Your task to perform on an android device: Open my contact list Image 0: 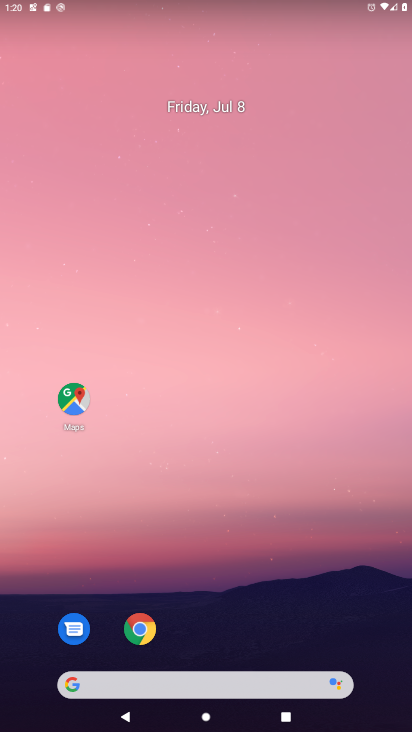
Step 0: drag from (301, 578) to (367, 22)
Your task to perform on an android device: Open my contact list Image 1: 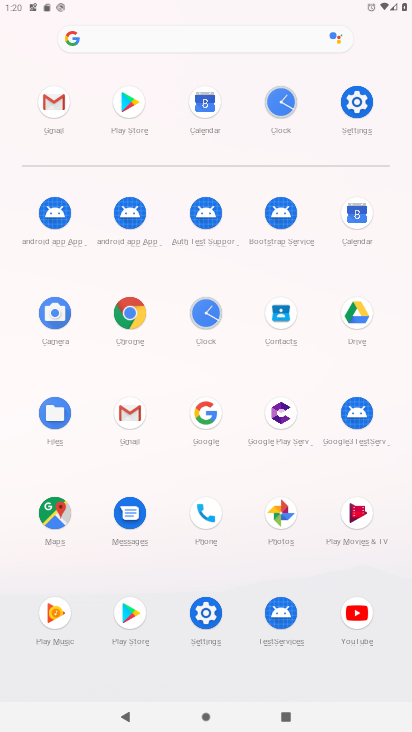
Step 1: click (285, 313)
Your task to perform on an android device: Open my contact list Image 2: 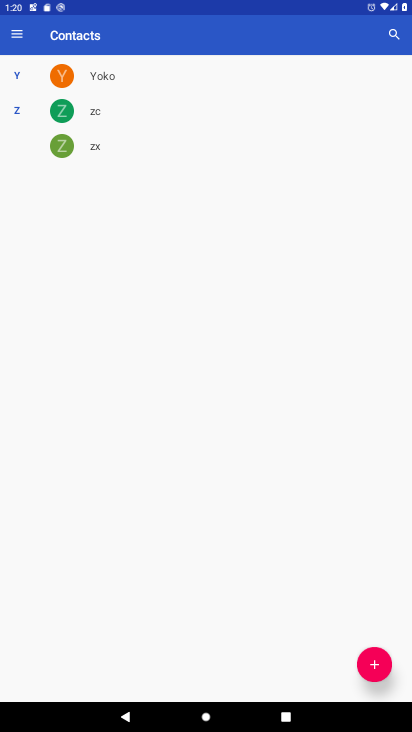
Step 2: task complete